Your task to perform on an android device: change text size in settings app Image 0: 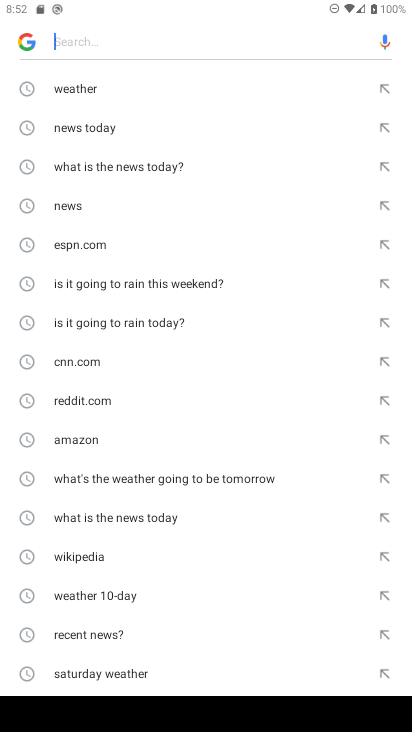
Step 0: press home button
Your task to perform on an android device: change text size in settings app Image 1: 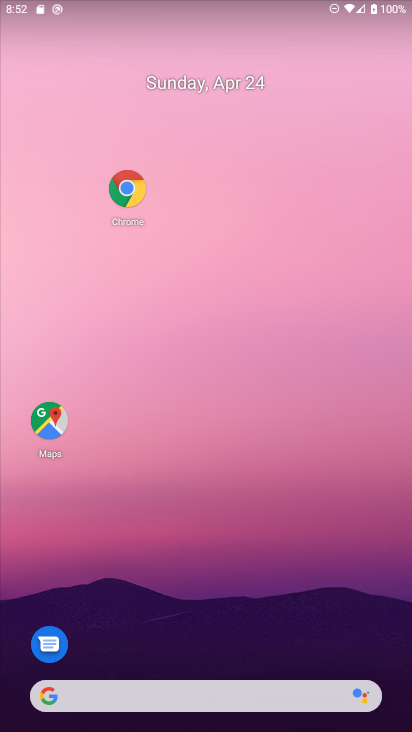
Step 1: drag from (214, 518) to (244, 83)
Your task to perform on an android device: change text size in settings app Image 2: 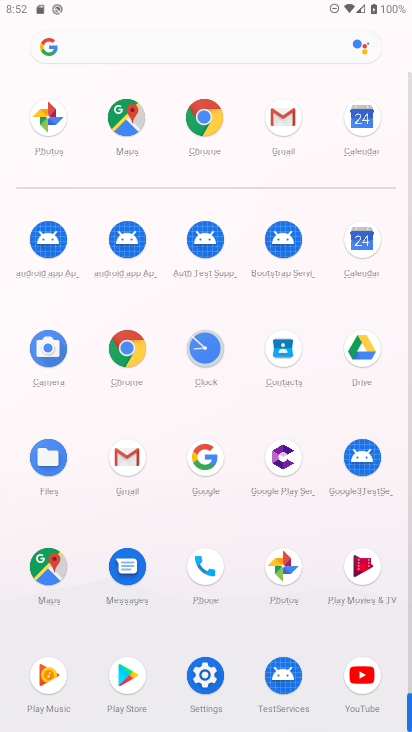
Step 2: click (206, 681)
Your task to perform on an android device: change text size in settings app Image 3: 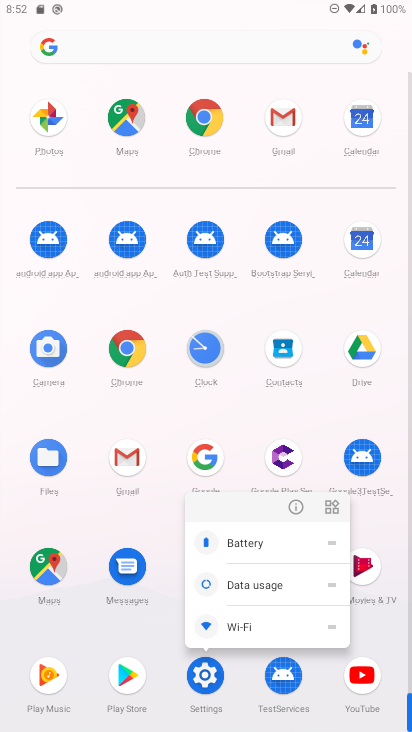
Step 3: click (298, 511)
Your task to perform on an android device: change text size in settings app Image 4: 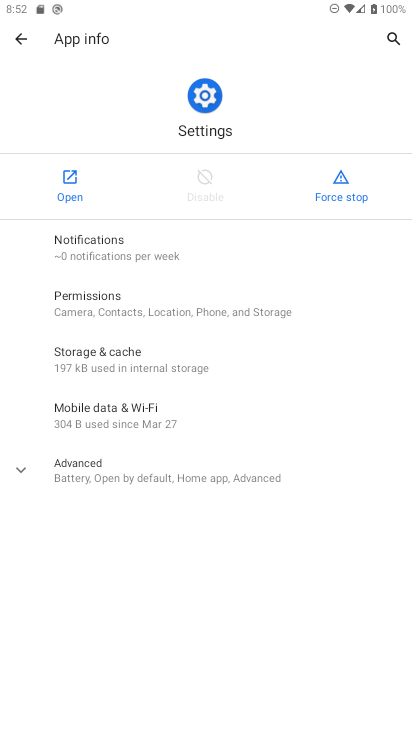
Step 4: click (63, 190)
Your task to perform on an android device: change text size in settings app Image 5: 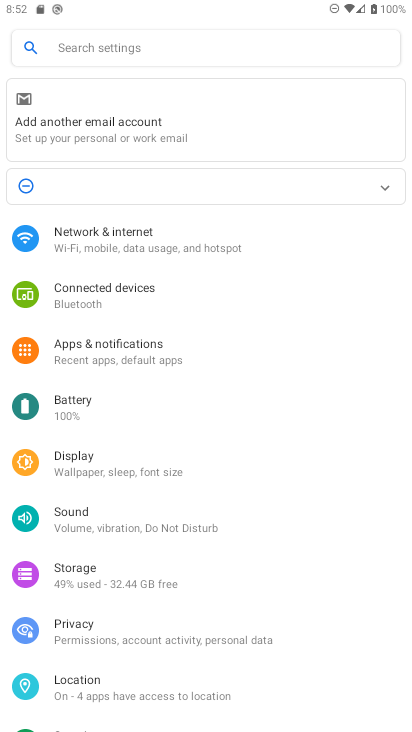
Step 5: click (113, 460)
Your task to perform on an android device: change text size in settings app Image 6: 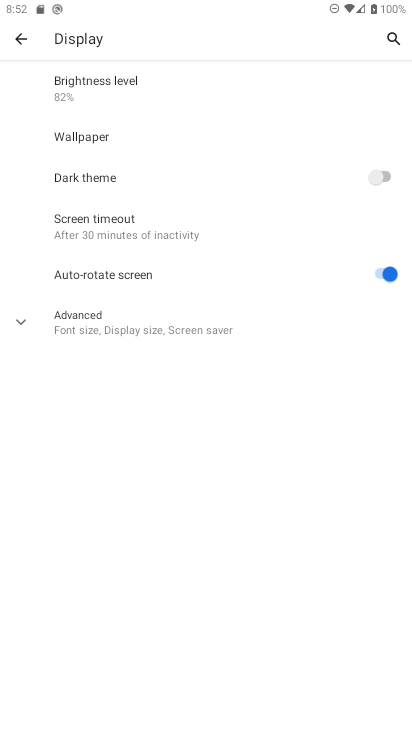
Step 6: click (90, 334)
Your task to perform on an android device: change text size in settings app Image 7: 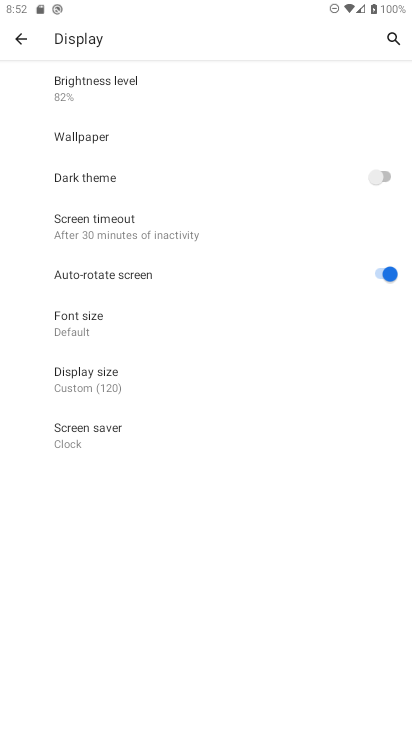
Step 7: click (139, 333)
Your task to perform on an android device: change text size in settings app Image 8: 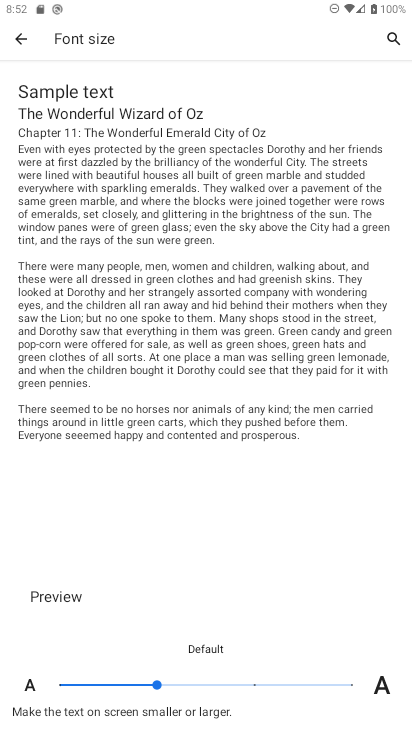
Step 8: drag from (242, 550) to (186, 133)
Your task to perform on an android device: change text size in settings app Image 9: 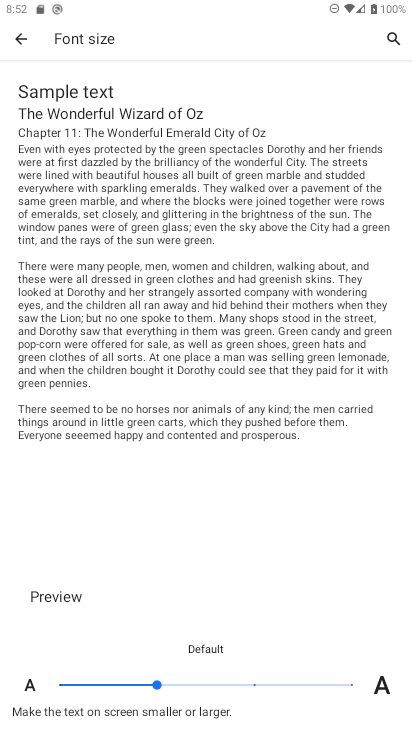
Step 9: click (245, 678)
Your task to perform on an android device: change text size in settings app Image 10: 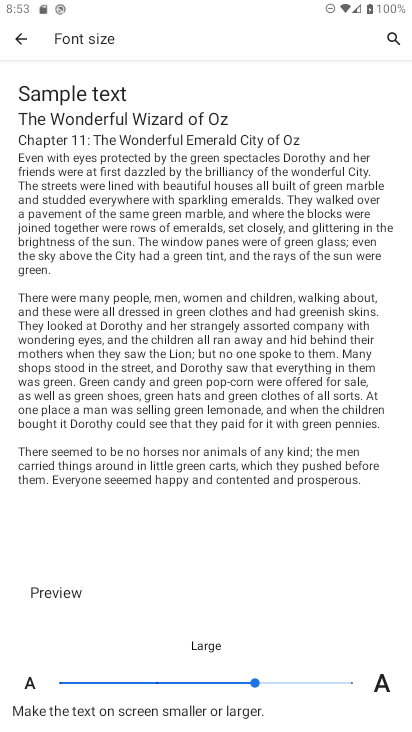
Step 10: click (66, 684)
Your task to perform on an android device: change text size in settings app Image 11: 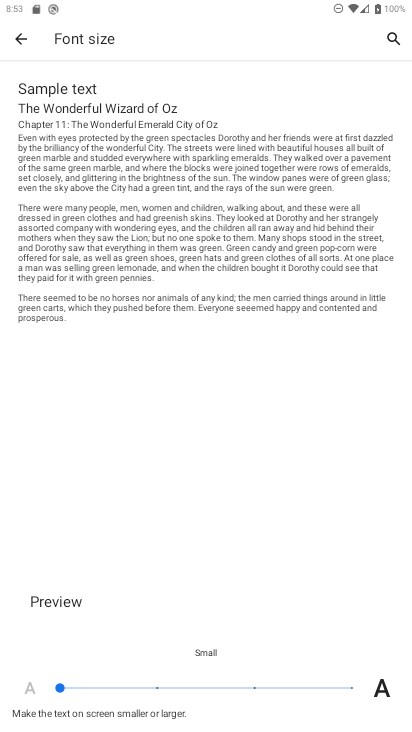
Step 11: task complete